Your task to perform on an android device: Set the phone to "Do not disturb". Image 0: 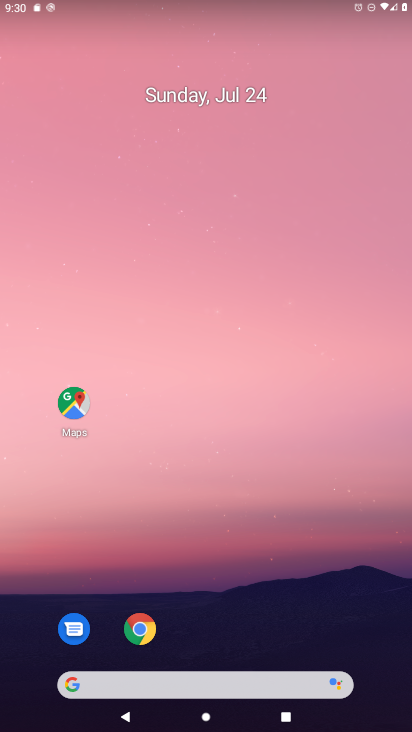
Step 0: drag from (312, 650) to (317, 570)
Your task to perform on an android device: Set the phone to "Do not disturb". Image 1: 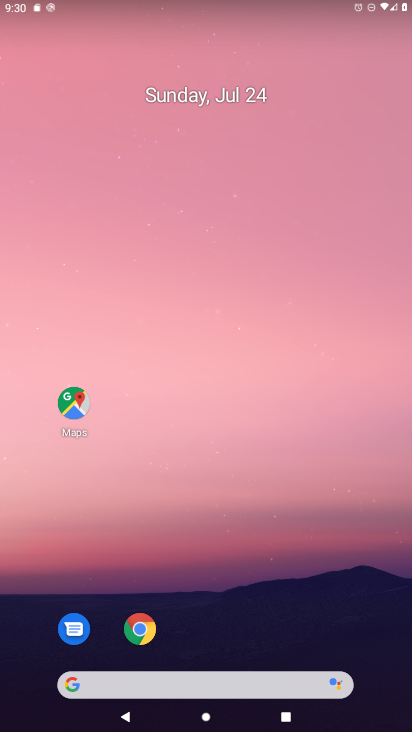
Step 1: task complete